Your task to perform on an android device: Go to location settings Image 0: 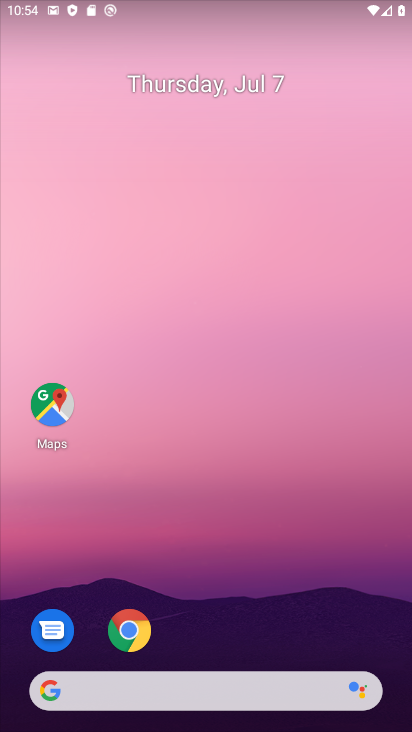
Step 0: drag from (396, 683) to (292, 26)
Your task to perform on an android device: Go to location settings Image 1: 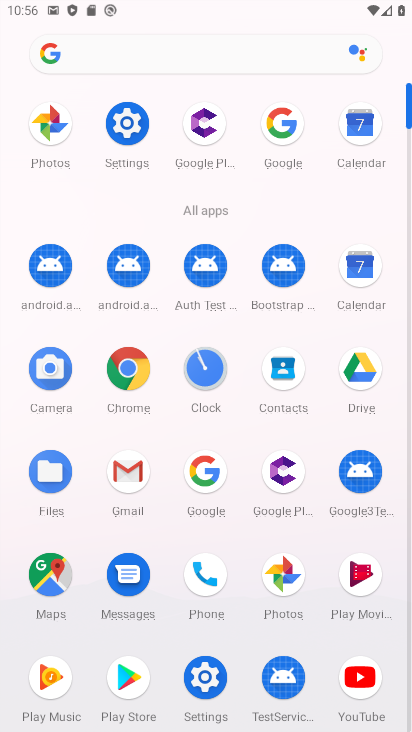
Step 1: click (209, 670)
Your task to perform on an android device: Go to location settings Image 2: 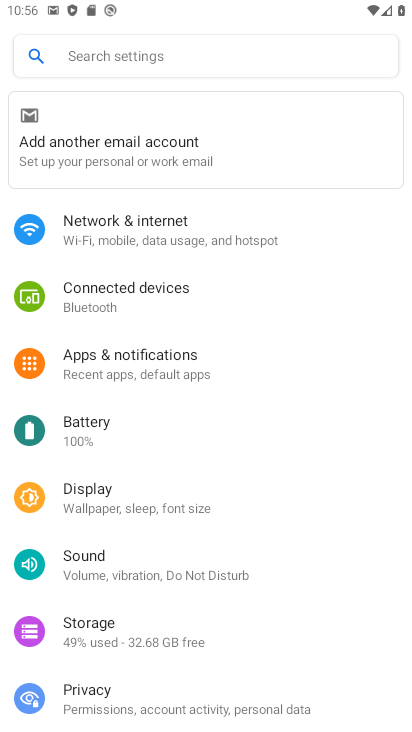
Step 2: drag from (88, 680) to (193, 195)
Your task to perform on an android device: Go to location settings Image 3: 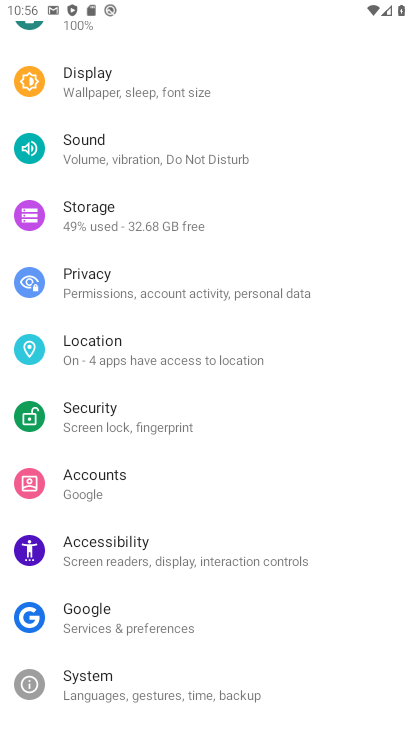
Step 3: click (120, 355)
Your task to perform on an android device: Go to location settings Image 4: 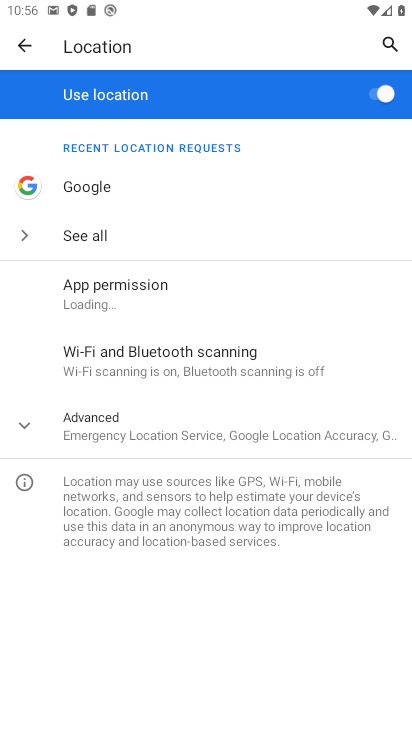
Step 4: click (47, 412)
Your task to perform on an android device: Go to location settings Image 5: 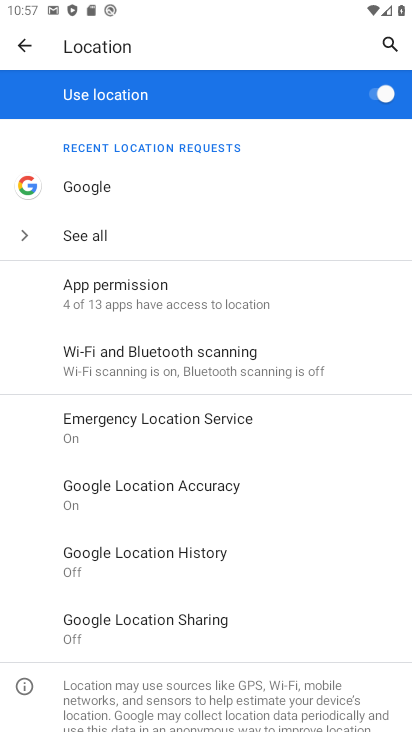
Step 5: task complete